Your task to perform on an android device: move a message to another label in the gmail app Image 0: 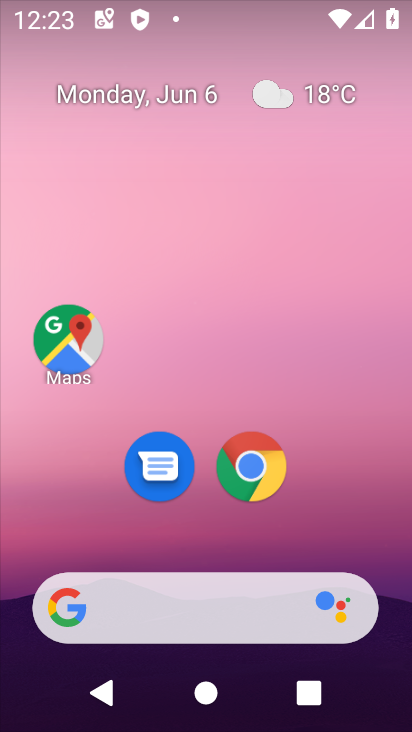
Step 0: drag from (375, 561) to (234, 27)
Your task to perform on an android device: move a message to another label in the gmail app Image 1: 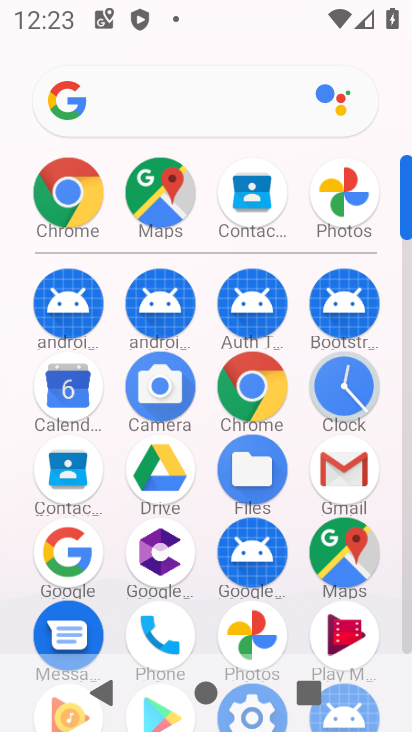
Step 1: drag from (11, 591) to (20, 210)
Your task to perform on an android device: move a message to another label in the gmail app Image 2: 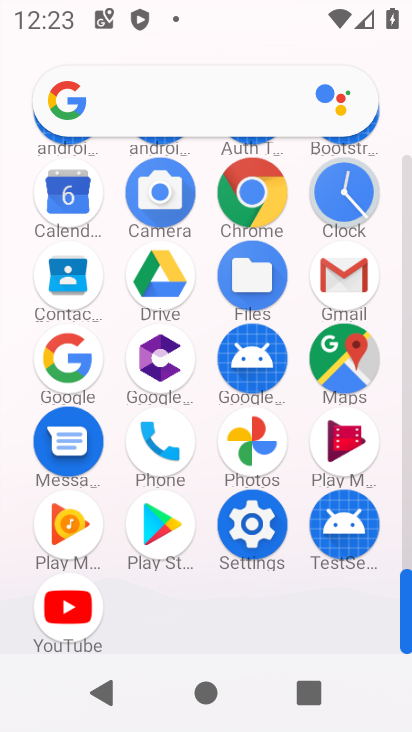
Step 2: click (340, 267)
Your task to perform on an android device: move a message to another label in the gmail app Image 3: 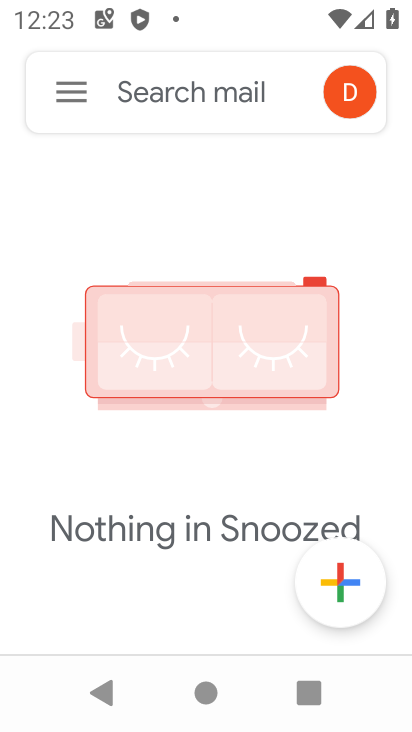
Step 3: click (60, 79)
Your task to perform on an android device: move a message to another label in the gmail app Image 4: 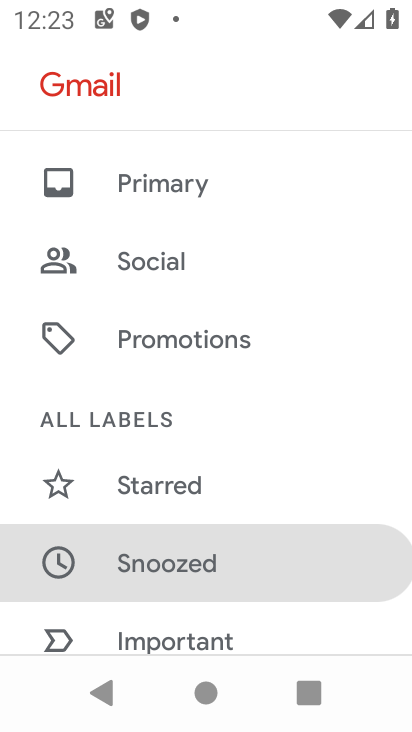
Step 4: drag from (260, 177) to (261, 488)
Your task to perform on an android device: move a message to another label in the gmail app Image 5: 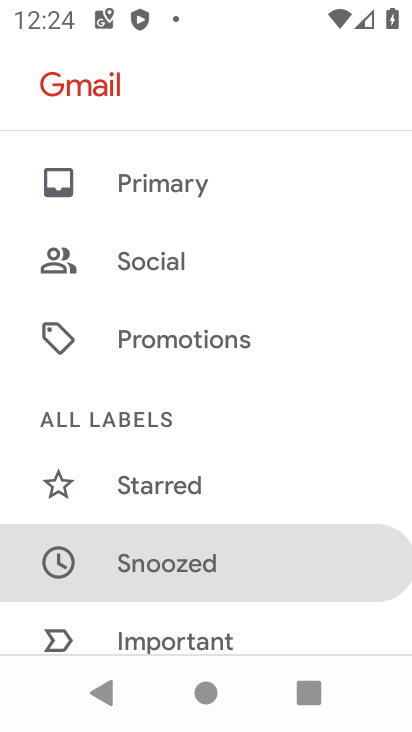
Step 5: drag from (219, 188) to (232, 489)
Your task to perform on an android device: move a message to another label in the gmail app Image 6: 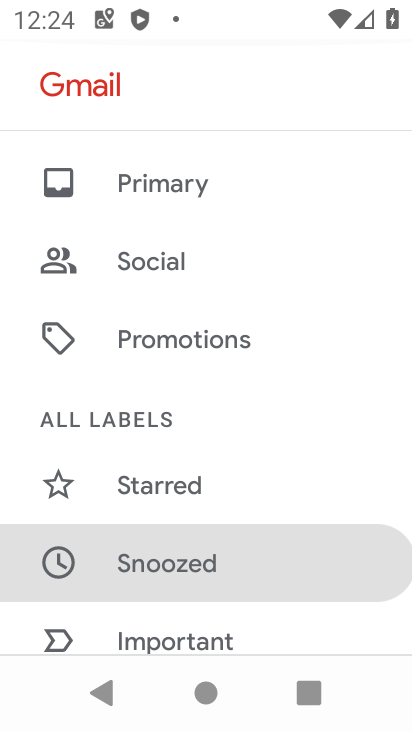
Step 6: click (183, 186)
Your task to perform on an android device: move a message to another label in the gmail app Image 7: 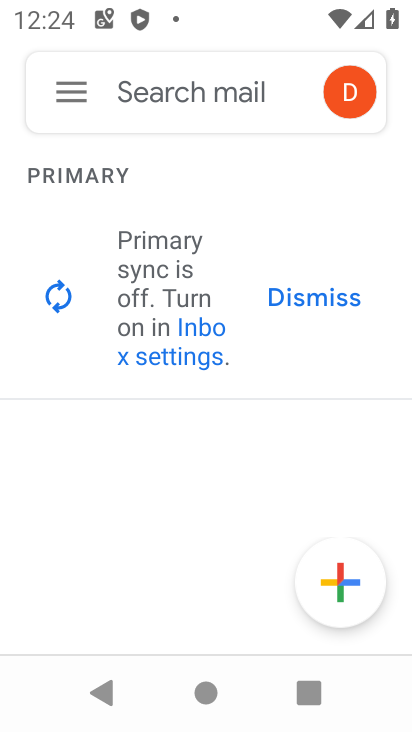
Step 7: click (67, 81)
Your task to perform on an android device: move a message to another label in the gmail app Image 8: 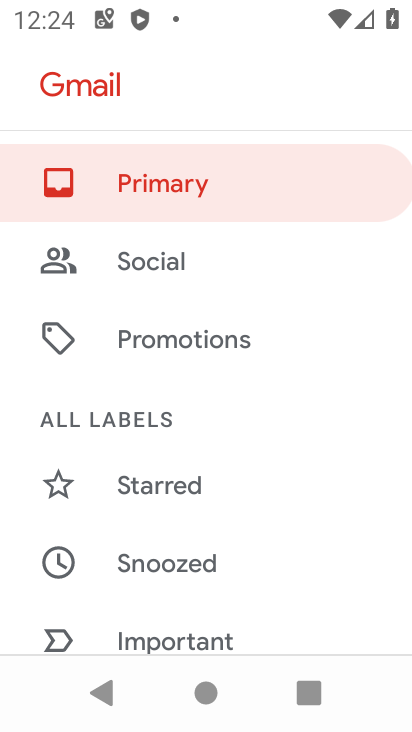
Step 8: drag from (242, 561) to (243, 279)
Your task to perform on an android device: move a message to another label in the gmail app Image 9: 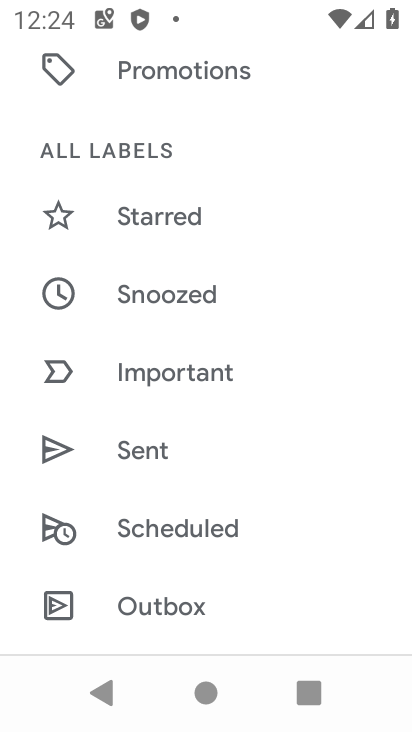
Step 9: drag from (225, 557) to (269, 222)
Your task to perform on an android device: move a message to another label in the gmail app Image 10: 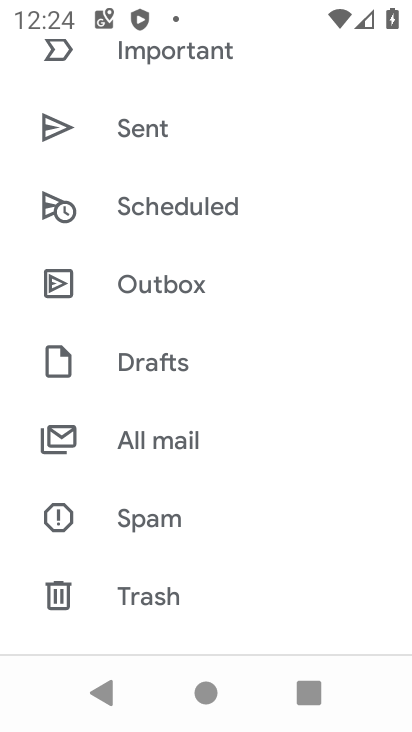
Step 10: click (181, 443)
Your task to perform on an android device: move a message to another label in the gmail app Image 11: 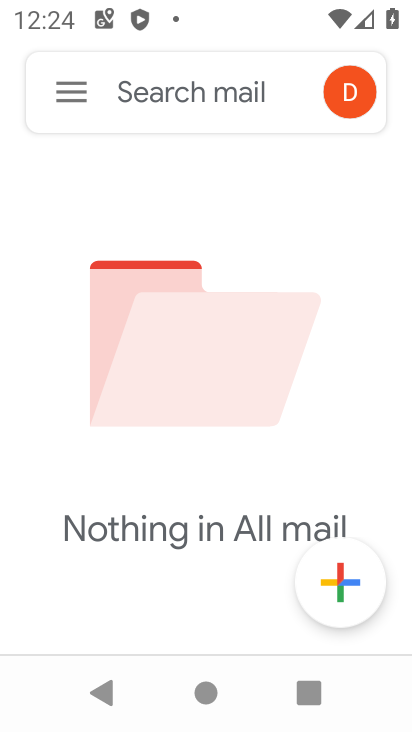
Step 11: task complete